Your task to perform on an android device: uninstall "Upside-Cash back on gas & food" Image 0: 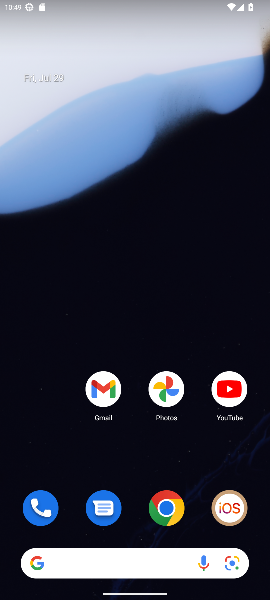
Step 0: drag from (161, 550) to (212, 84)
Your task to perform on an android device: uninstall "Upside-Cash back on gas & food" Image 1: 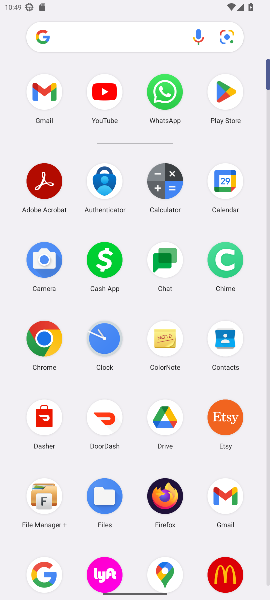
Step 1: click (217, 98)
Your task to perform on an android device: uninstall "Upside-Cash back on gas & food" Image 2: 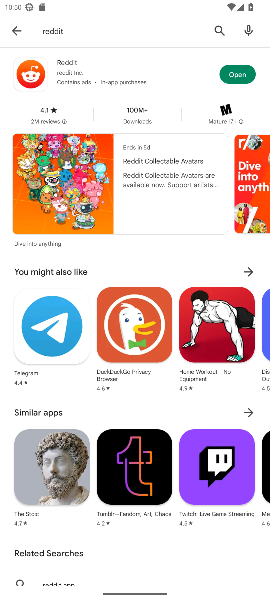
Step 2: click (221, 31)
Your task to perform on an android device: uninstall "Upside-Cash back on gas & food" Image 3: 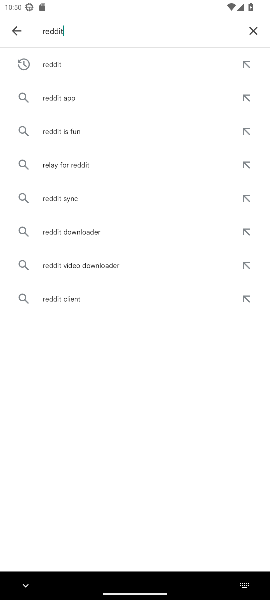
Step 3: click (251, 29)
Your task to perform on an android device: uninstall "Upside-Cash back on gas & food" Image 4: 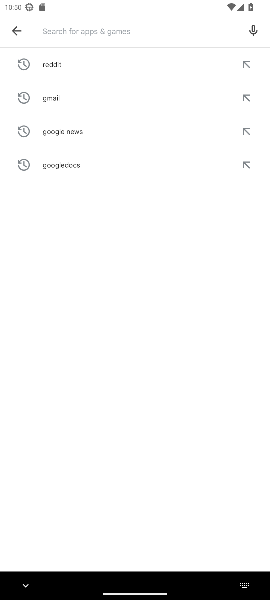
Step 4: type "upside-cash"
Your task to perform on an android device: uninstall "Upside-Cash back on gas & food" Image 5: 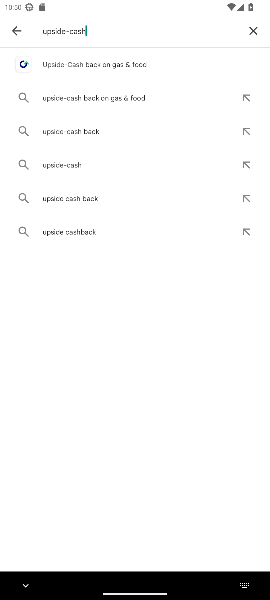
Step 5: click (123, 69)
Your task to perform on an android device: uninstall "Upside-Cash back on gas & food" Image 6: 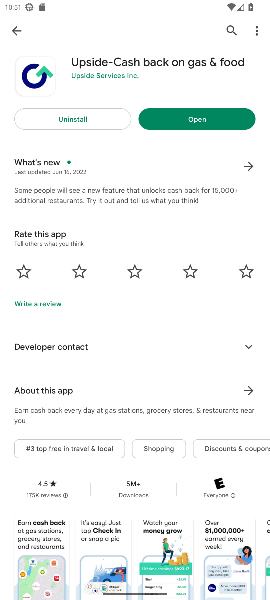
Step 6: click (66, 117)
Your task to perform on an android device: uninstall "Upside-Cash back on gas & food" Image 7: 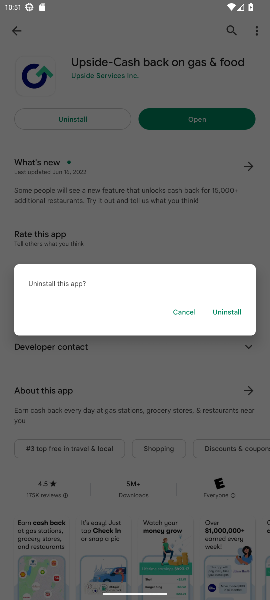
Step 7: click (229, 309)
Your task to perform on an android device: uninstall "Upside-Cash back on gas & food" Image 8: 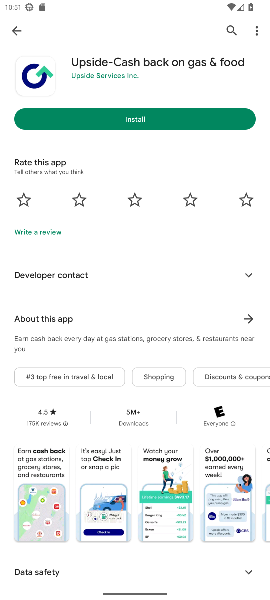
Step 8: task complete